Your task to perform on an android device: change keyboard looks Image 0: 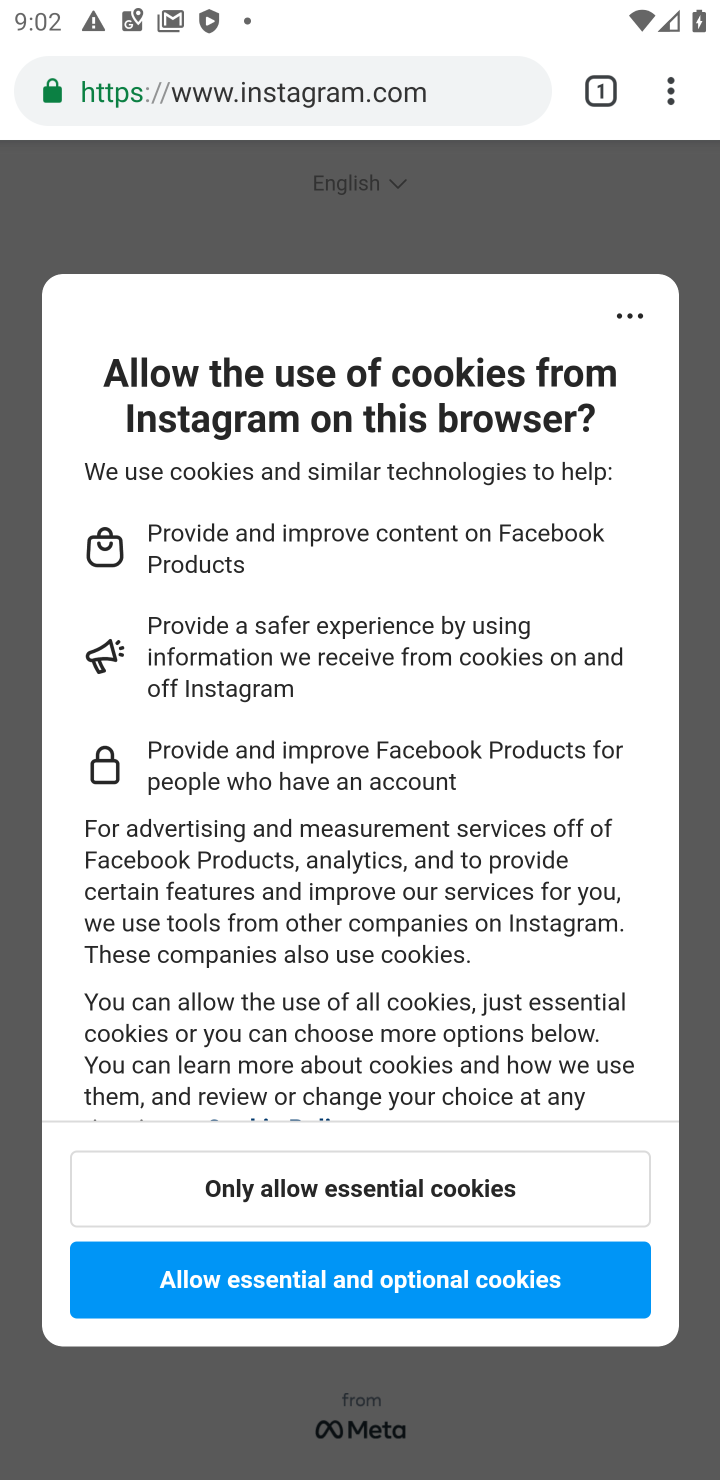
Step 0: press home button
Your task to perform on an android device: change keyboard looks Image 1: 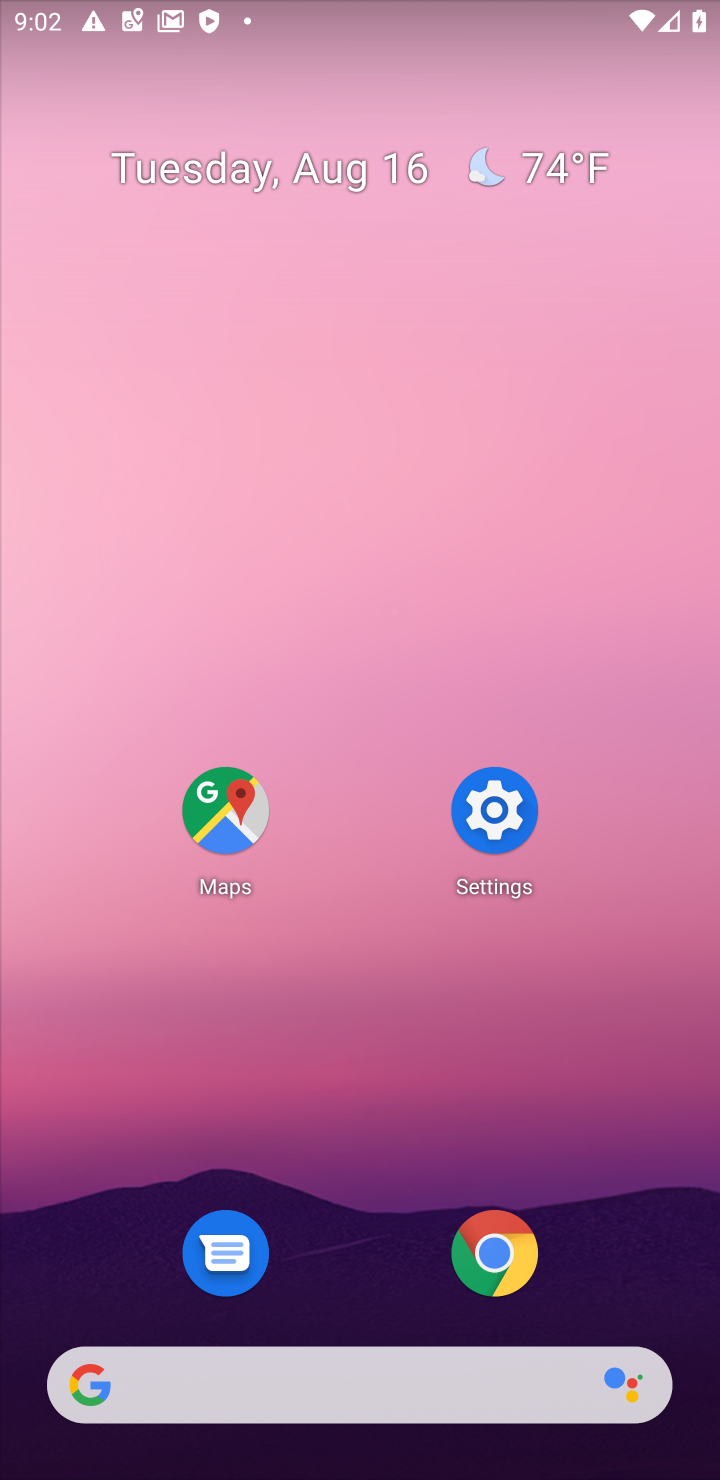
Step 1: click (483, 807)
Your task to perform on an android device: change keyboard looks Image 2: 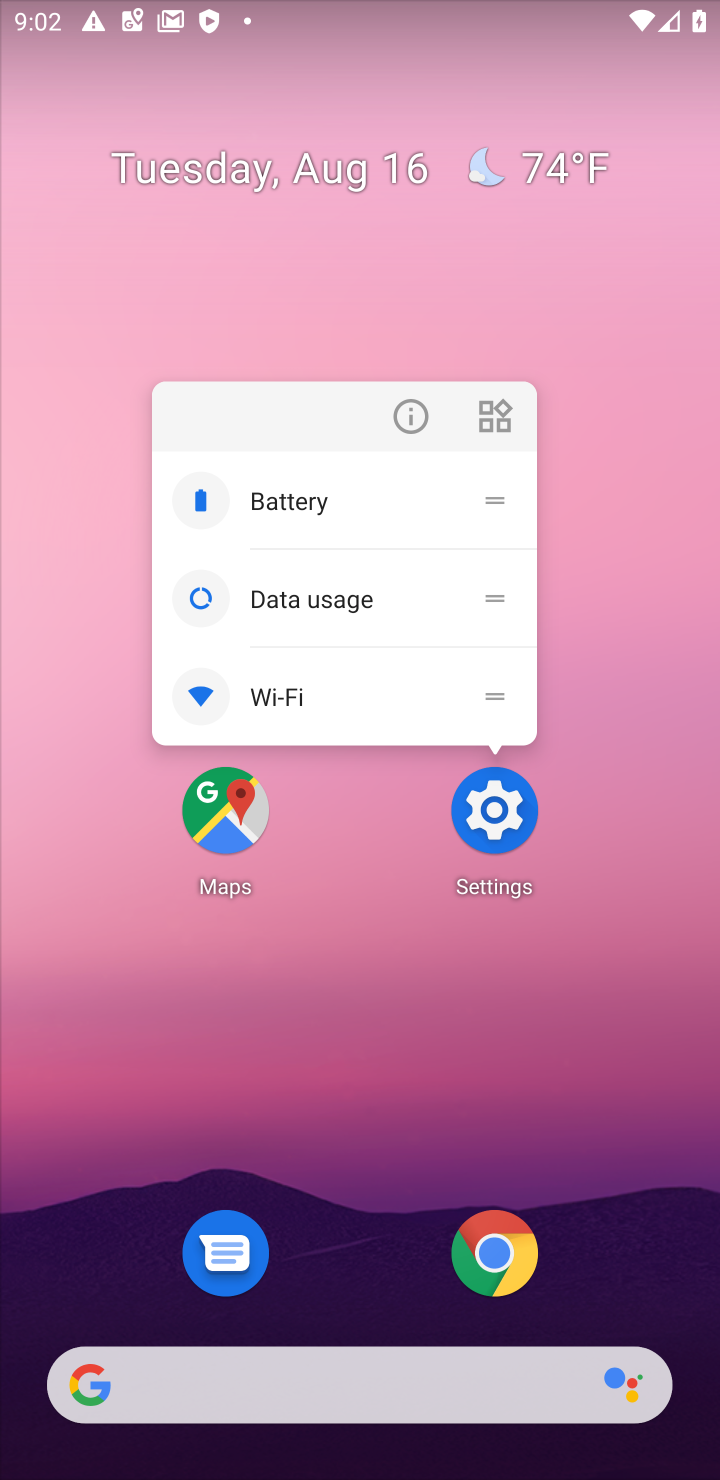
Step 2: click (483, 807)
Your task to perform on an android device: change keyboard looks Image 3: 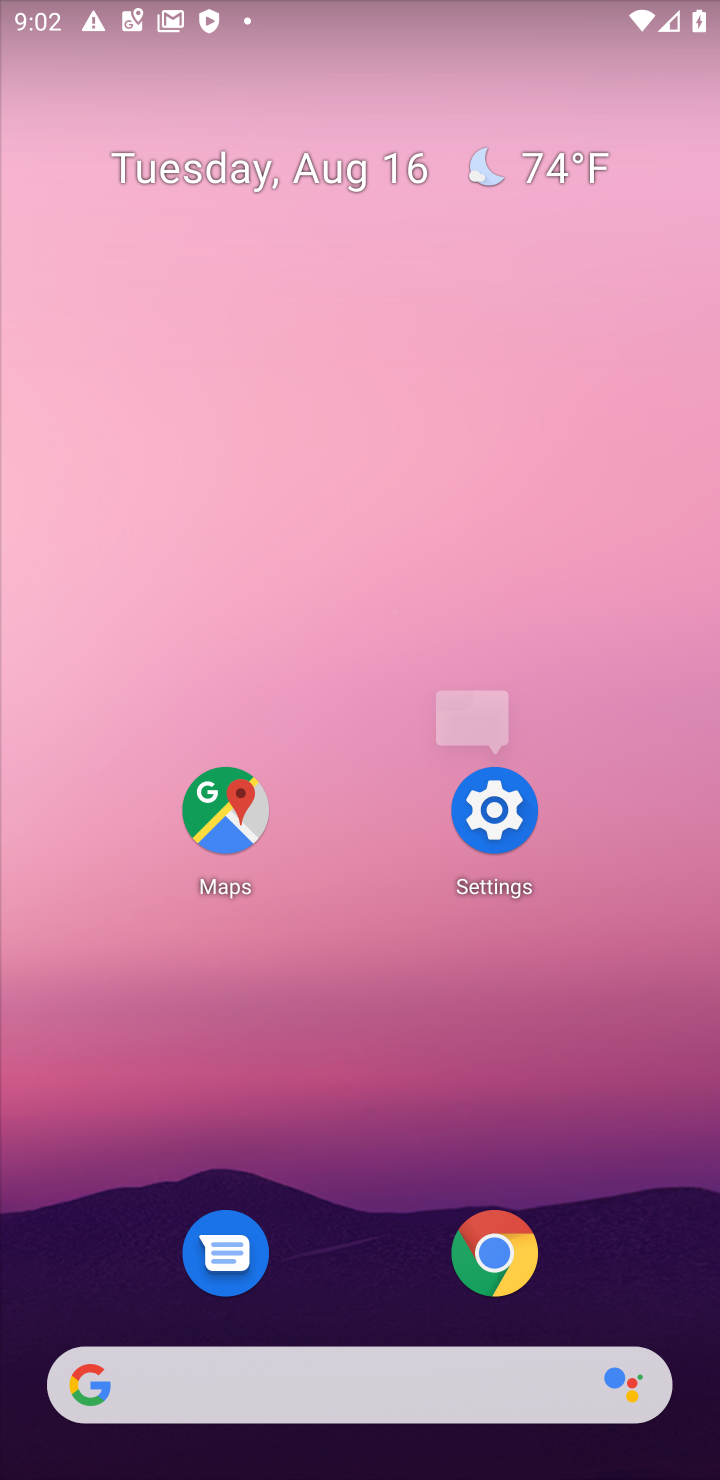
Step 3: click (483, 807)
Your task to perform on an android device: change keyboard looks Image 4: 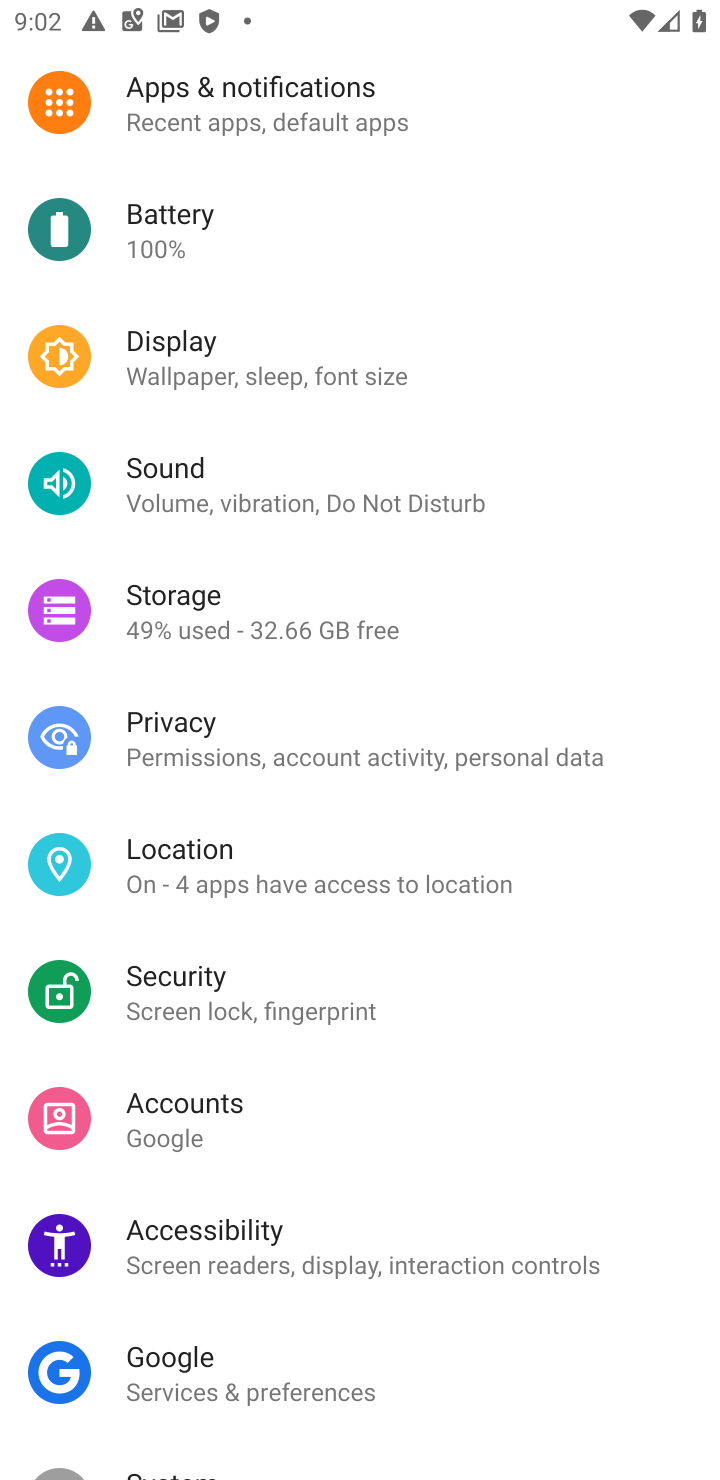
Step 4: drag from (525, 1316) to (719, 238)
Your task to perform on an android device: change keyboard looks Image 5: 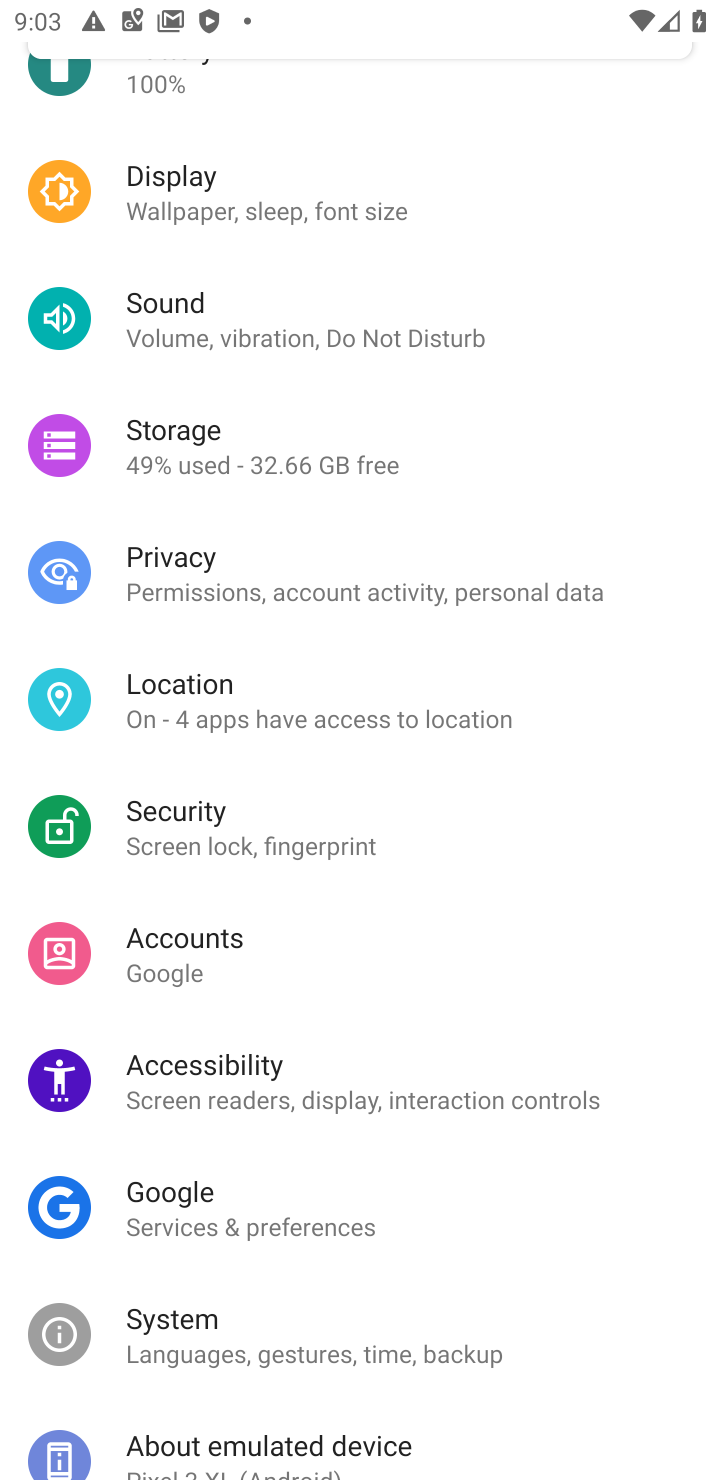
Step 5: click (226, 1342)
Your task to perform on an android device: change keyboard looks Image 6: 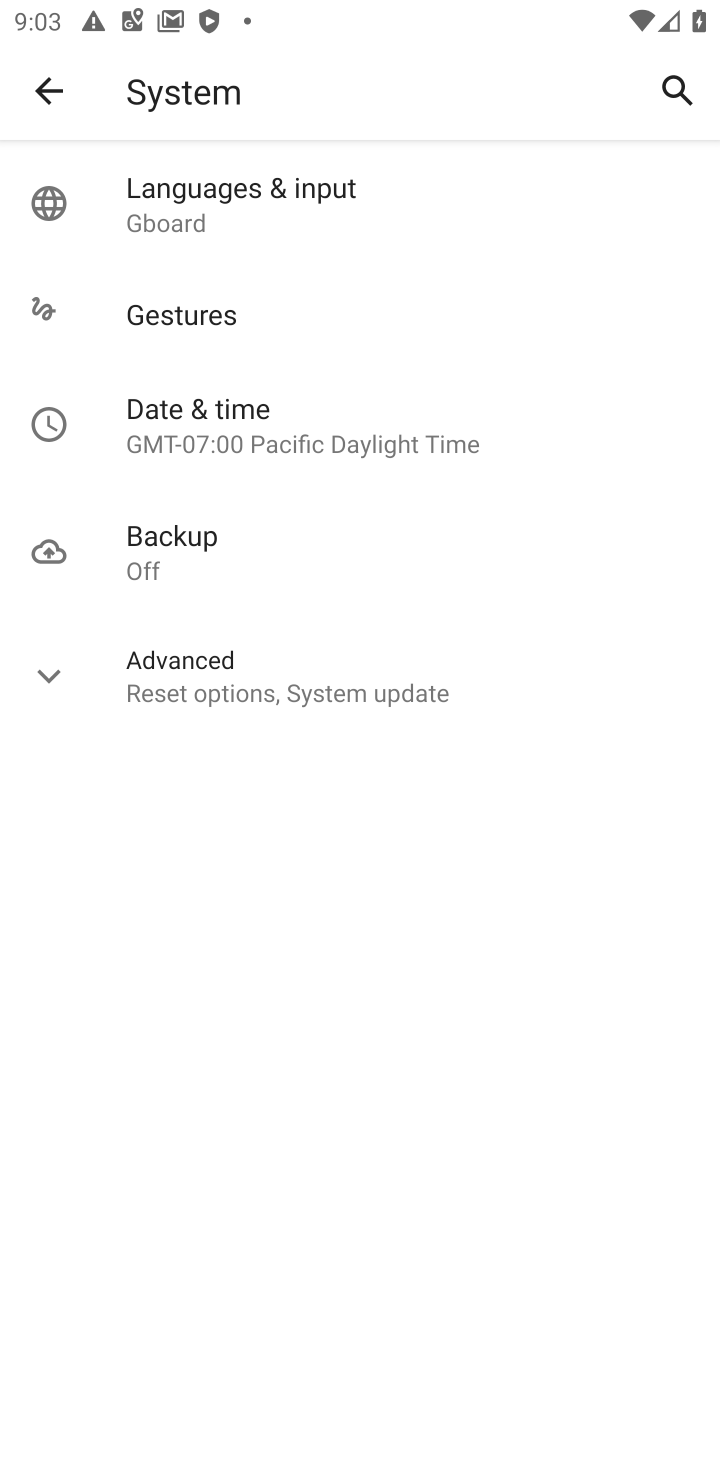
Step 6: click (199, 214)
Your task to perform on an android device: change keyboard looks Image 7: 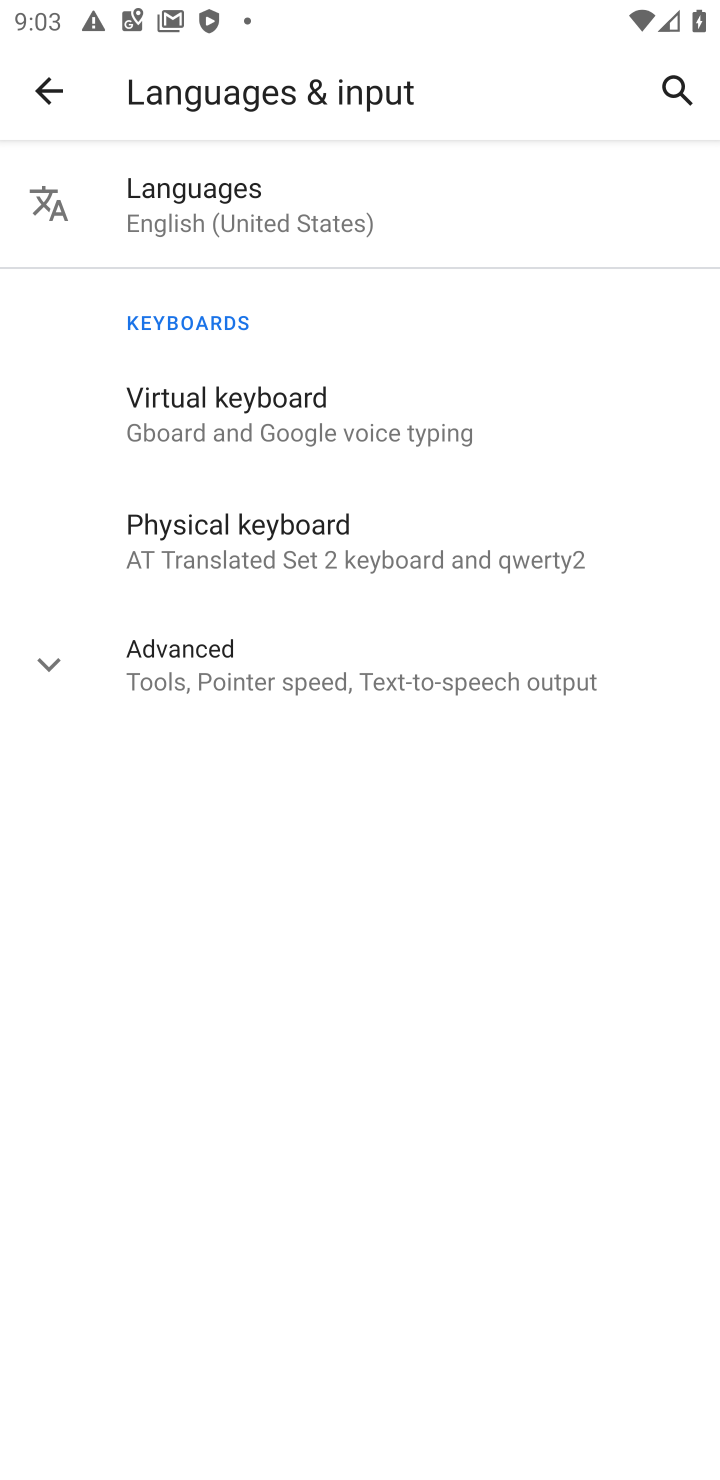
Step 7: click (220, 212)
Your task to perform on an android device: change keyboard looks Image 8: 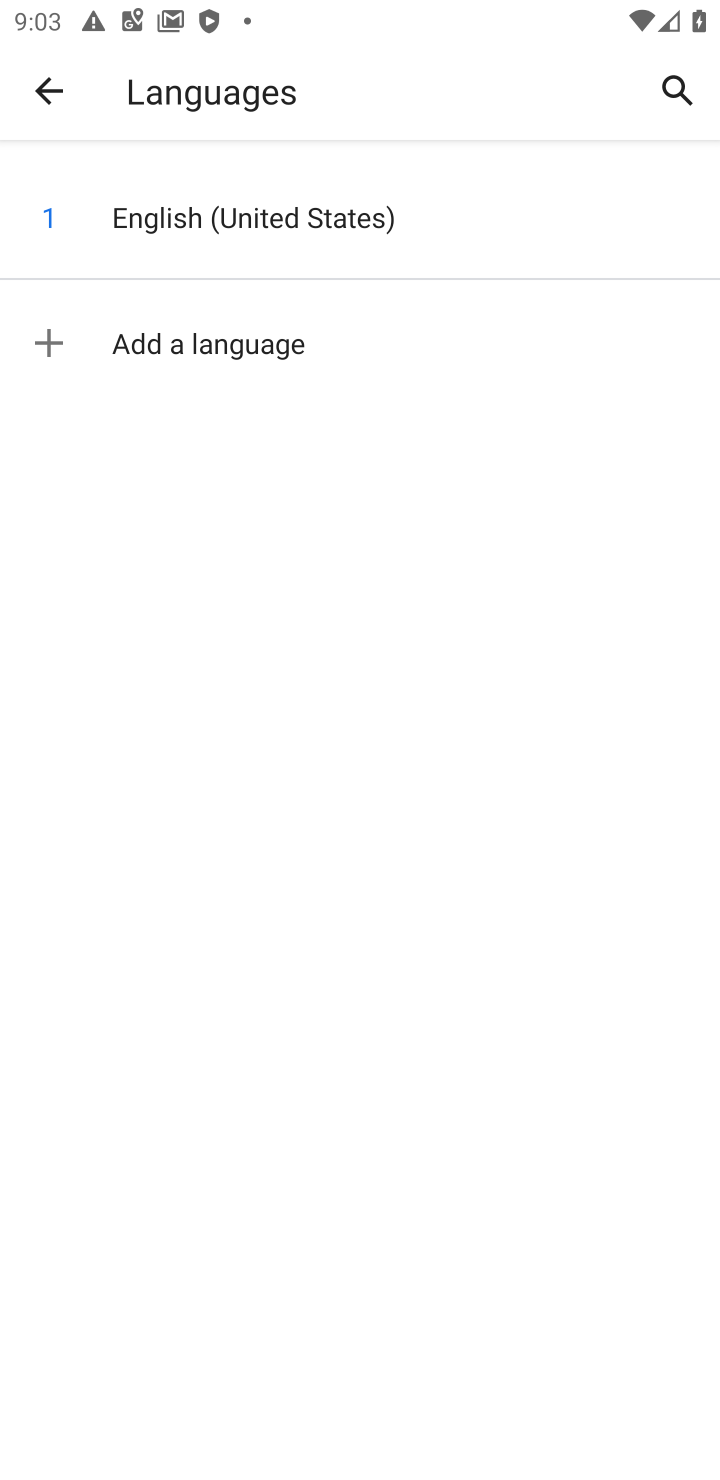
Step 8: press back button
Your task to perform on an android device: change keyboard looks Image 9: 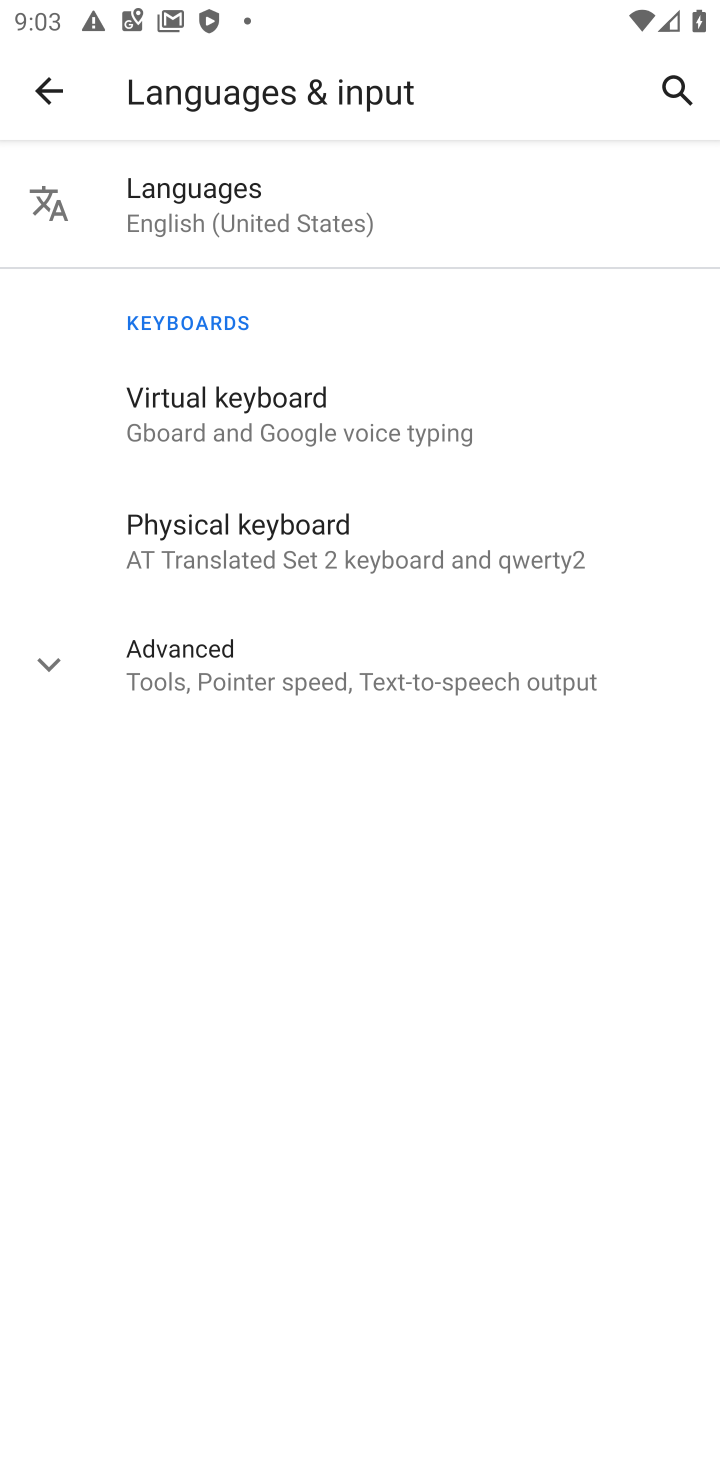
Step 9: click (219, 419)
Your task to perform on an android device: change keyboard looks Image 10: 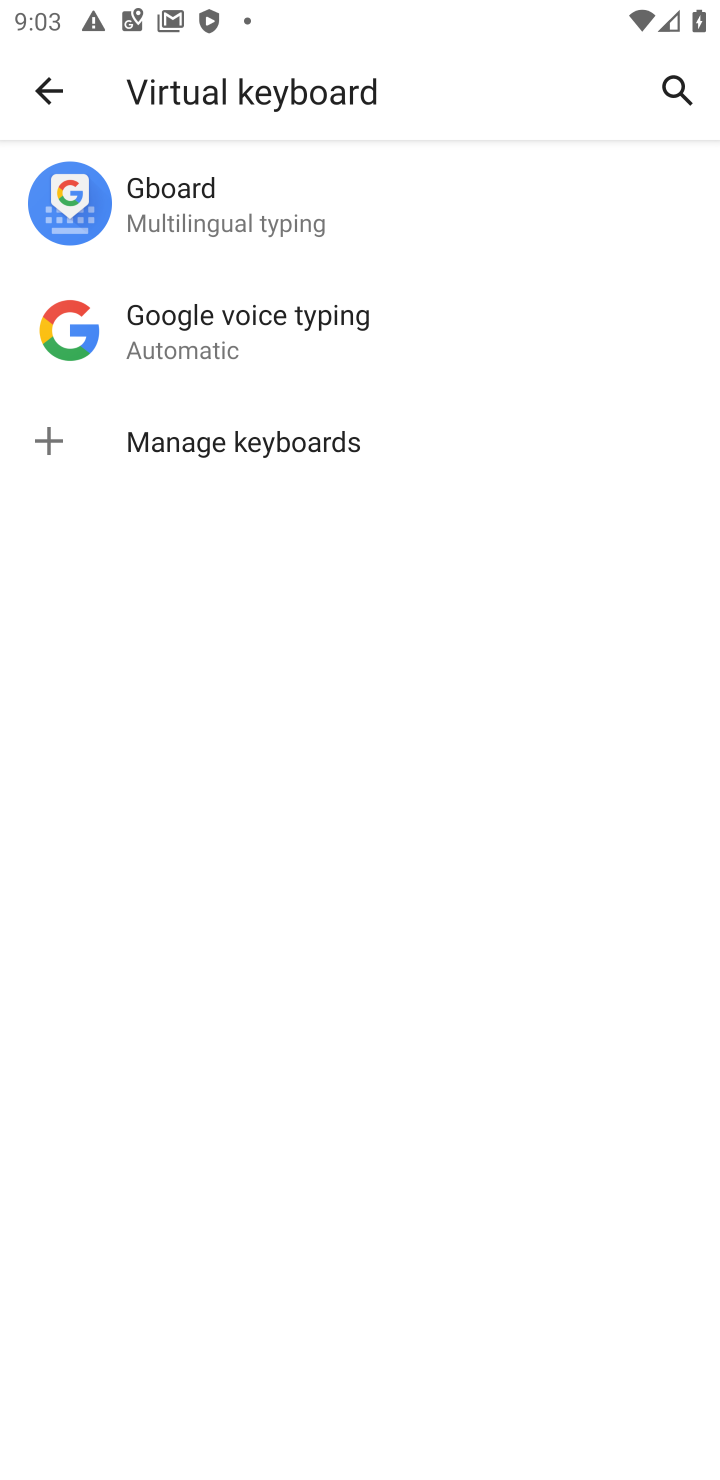
Step 10: click (190, 223)
Your task to perform on an android device: change keyboard looks Image 11: 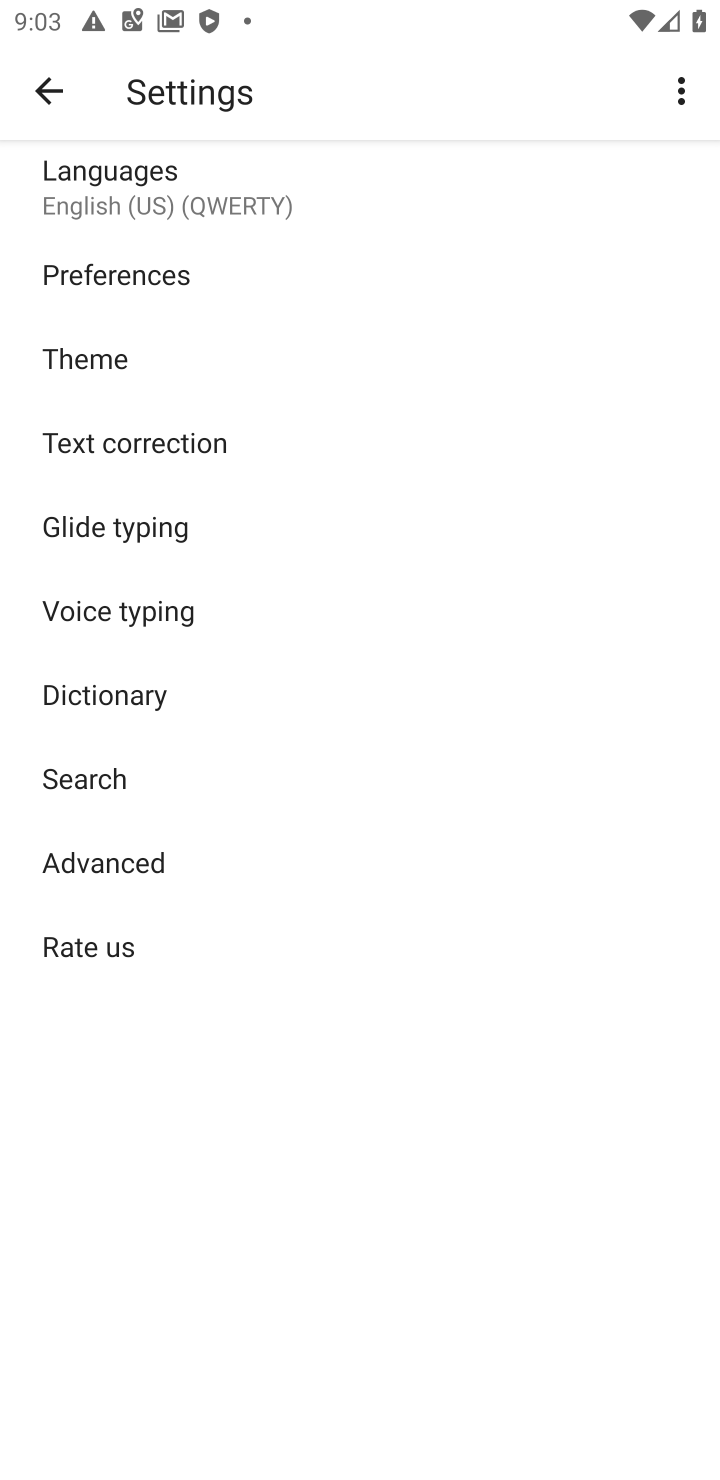
Step 11: click (112, 358)
Your task to perform on an android device: change keyboard looks Image 12: 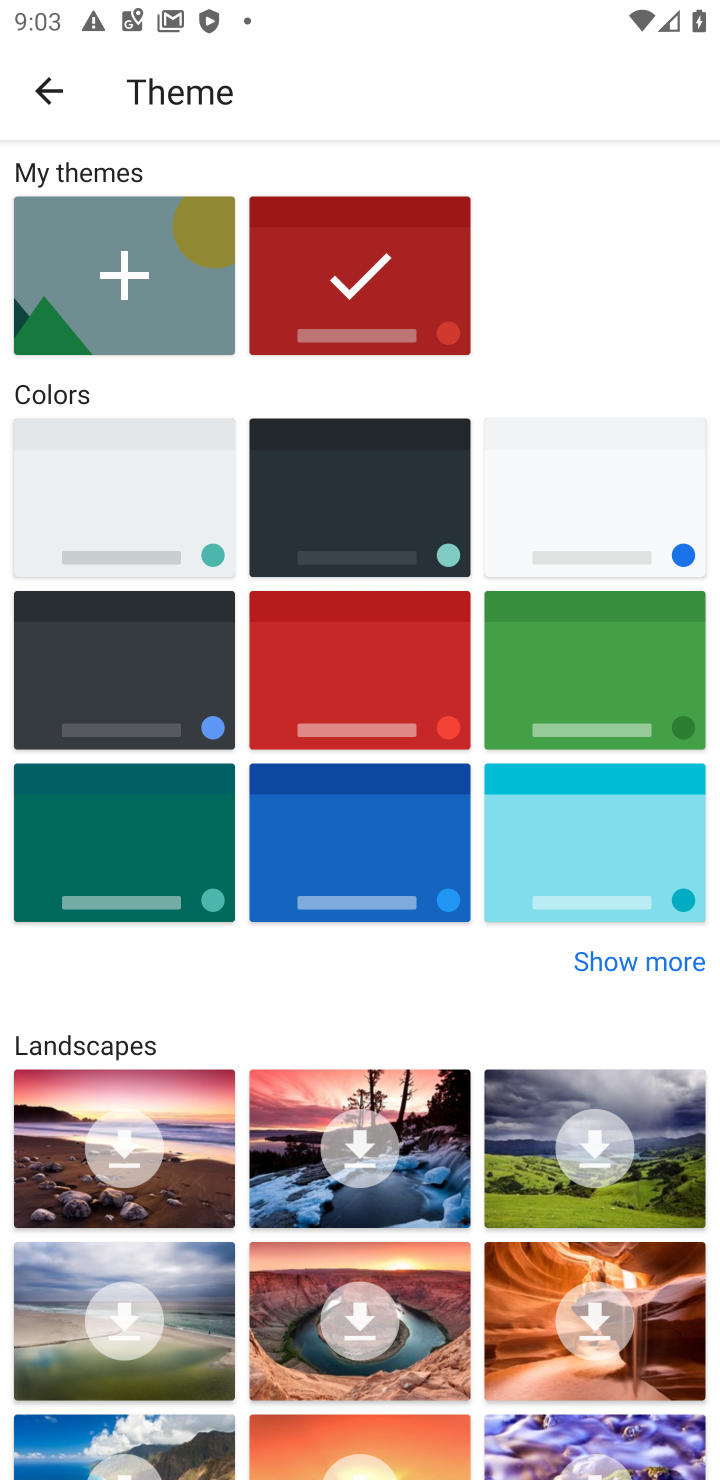
Step 12: click (127, 810)
Your task to perform on an android device: change keyboard looks Image 13: 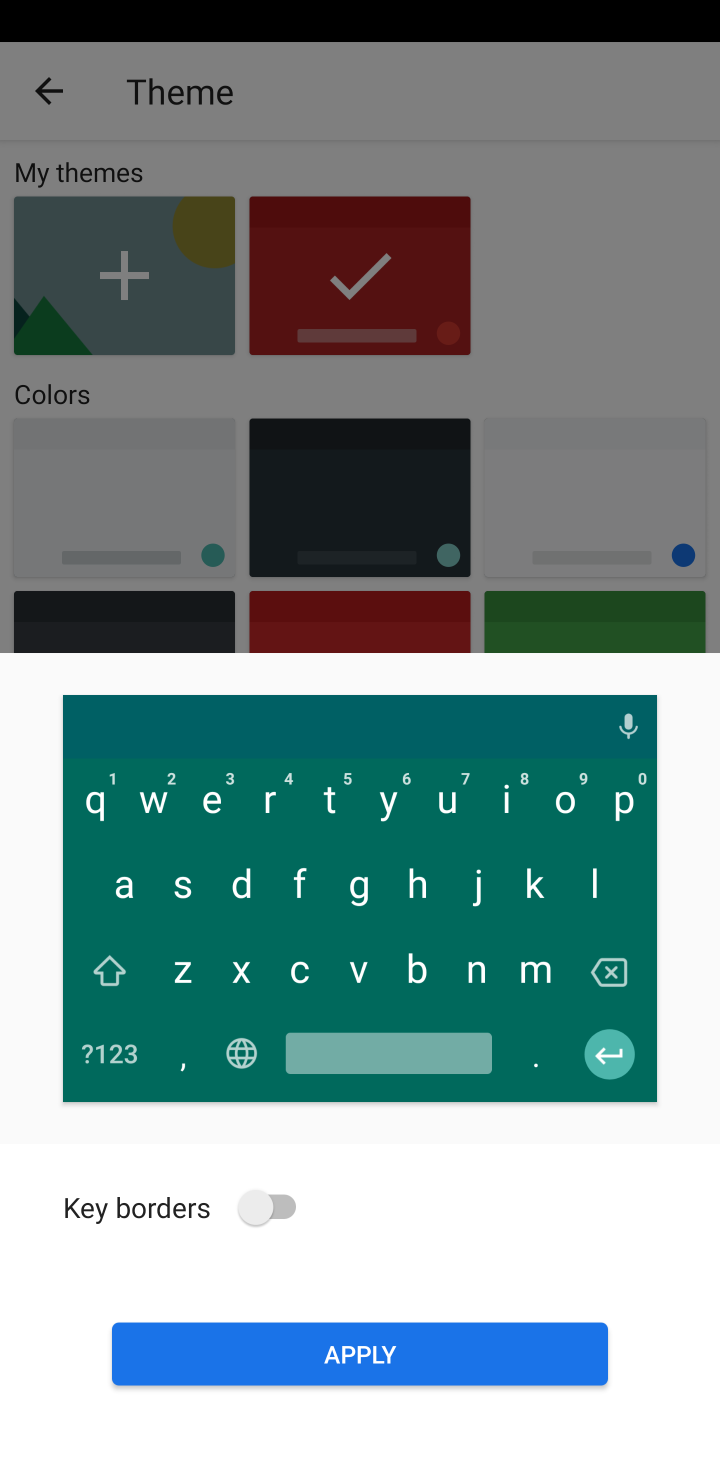
Step 13: click (399, 1341)
Your task to perform on an android device: change keyboard looks Image 14: 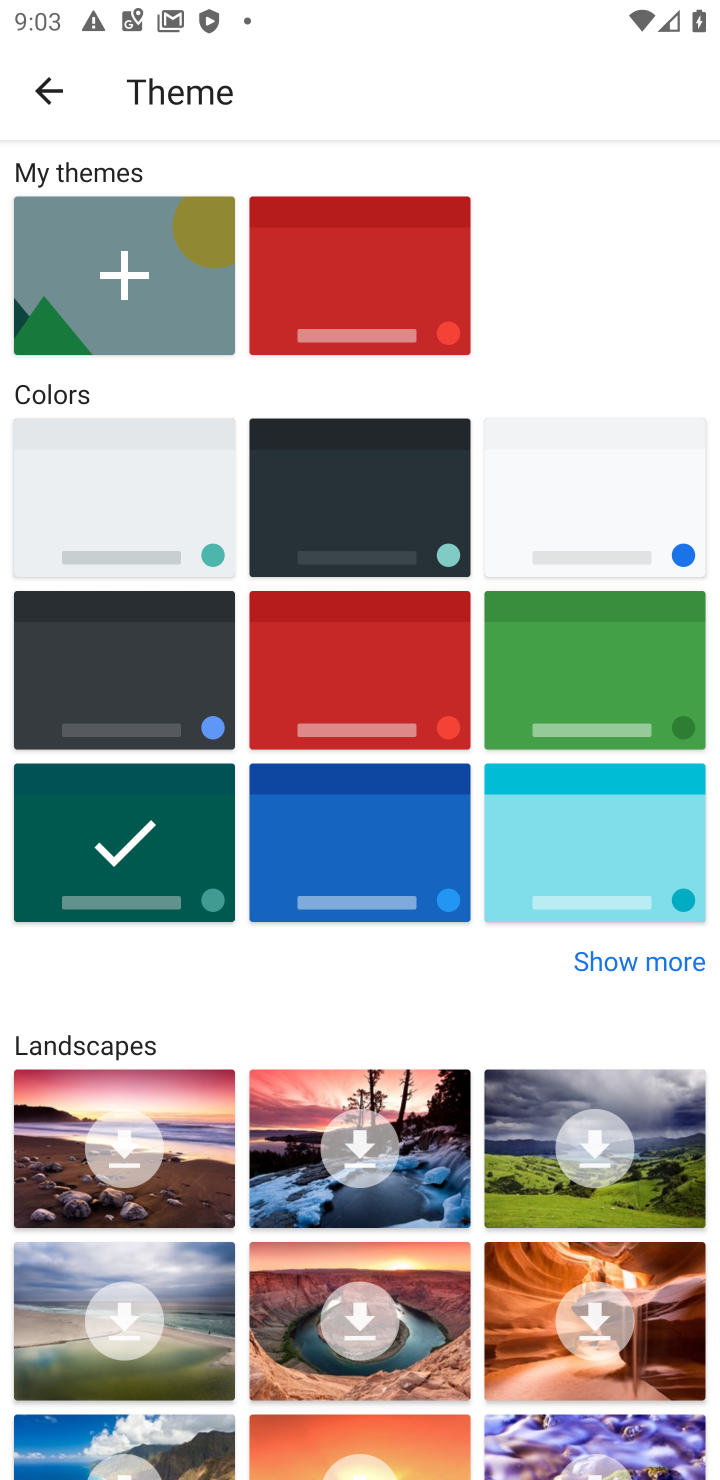
Step 14: task complete